Your task to perform on an android device: Show me popular games on the Play Store Image 0: 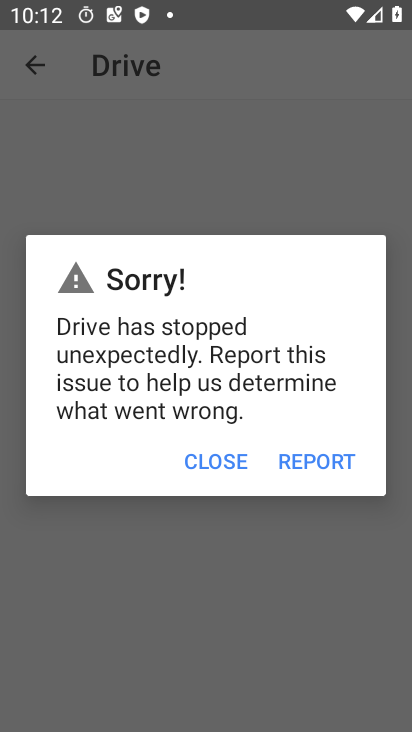
Step 0: press home button
Your task to perform on an android device: Show me popular games on the Play Store Image 1: 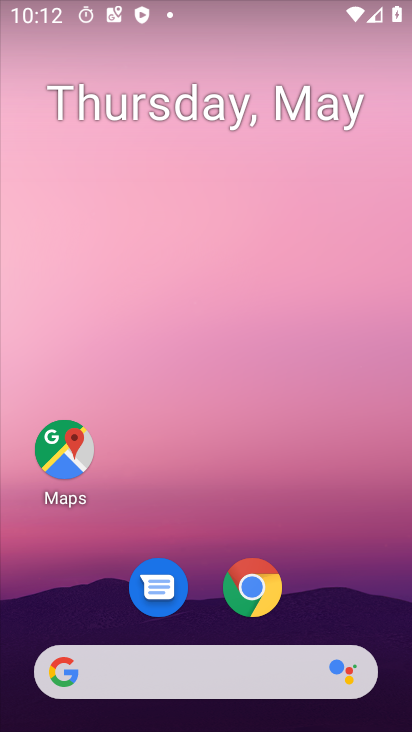
Step 1: drag from (359, 633) to (368, 20)
Your task to perform on an android device: Show me popular games on the Play Store Image 2: 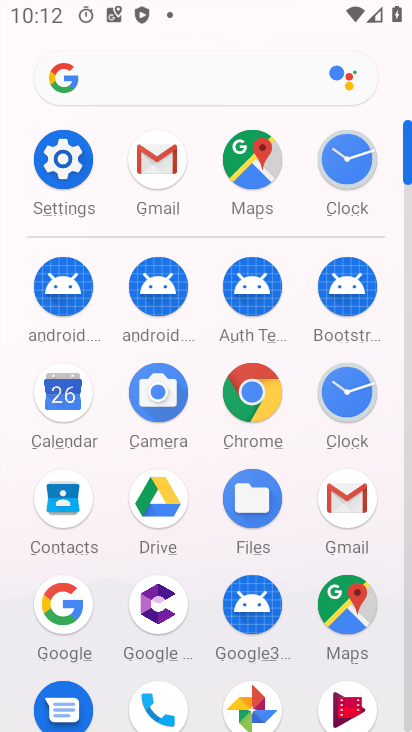
Step 2: click (409, 508)
Your task to perform on an android device: Show me popular games on the Play Store Image 3: 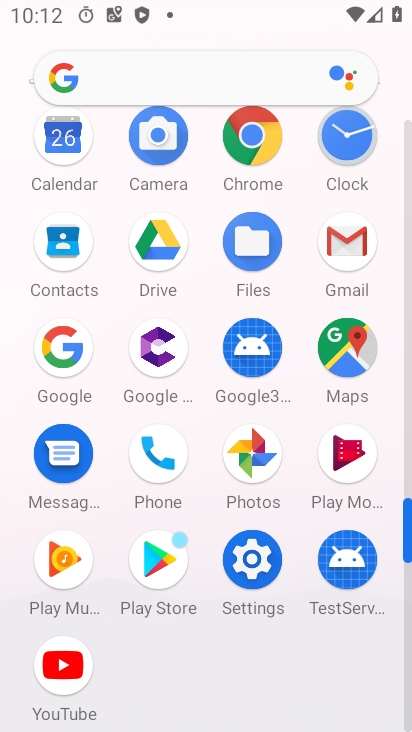
Step 3: click (141, 565)
Your task to perform on an android device: Show me popular games on the Play Store Image 4: 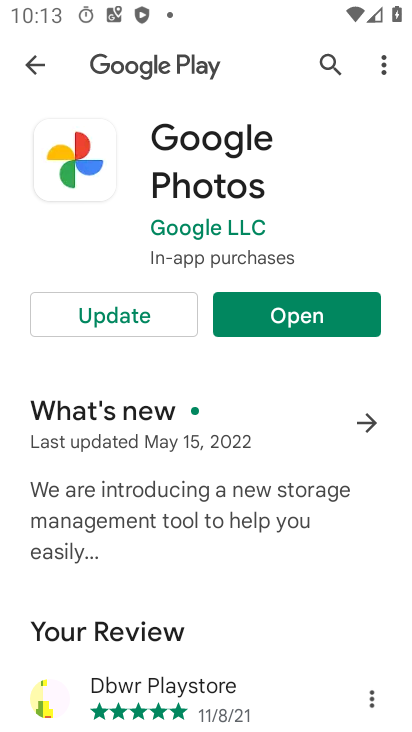
Step 4: click (36, 64)
Your task to perform on an android device: Show me popular games on the Play Store Image 5: 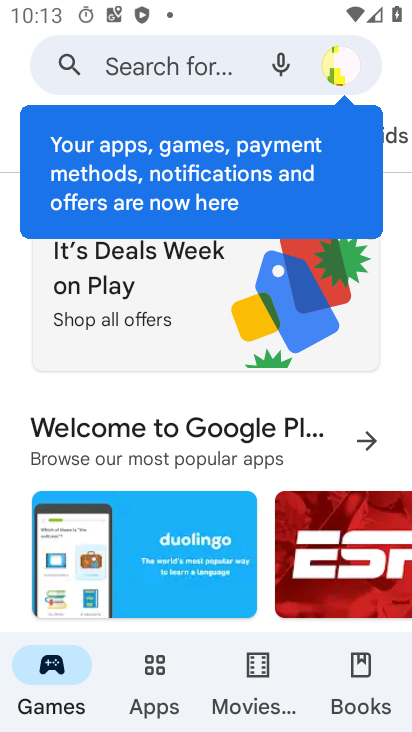
Step 5: drag from (224, 566) to (230, 187)
Your task to perform on an android device: Show me popular games on the Play Store Image 6: 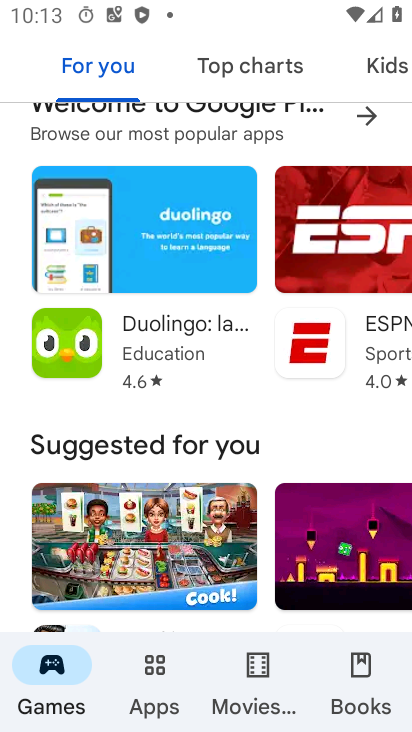
Step 6: drag from (255, 467) to (211, 27)
Your task to perform on an android device: Show me popular games on the Play Store Image 7: 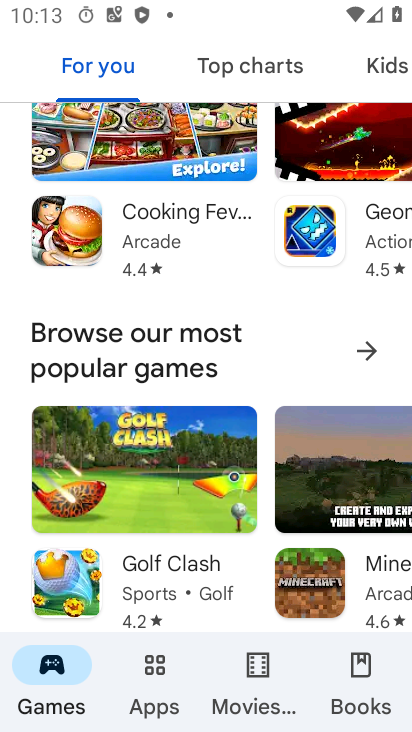
Step 7: click (172, 348)
Your task to perform on an android device: Show me popular games on the Play Store Image 8: 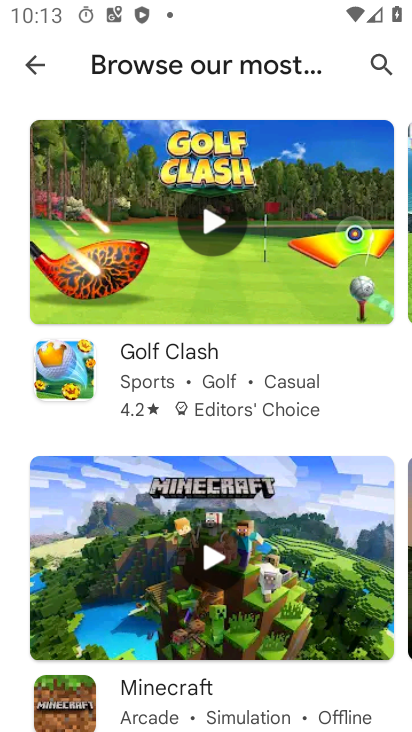
Step 8: task complete